Your task to perform on an android device: all mails in gmail Image 0: 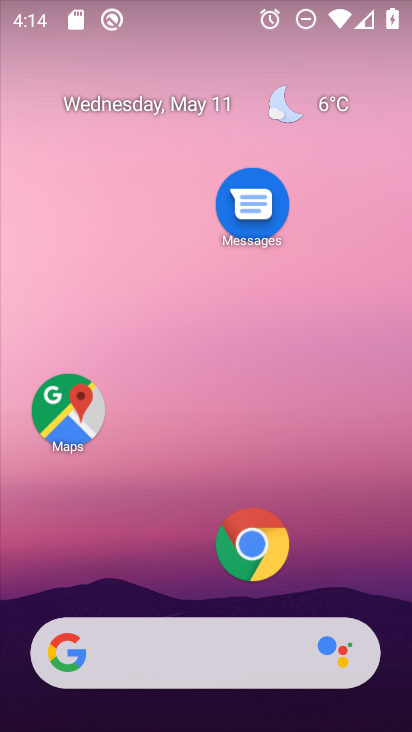
Step 0: drag from (177, 389) to (231, 32)
Your task to perform on an android device: all mails in gmail Image 1: 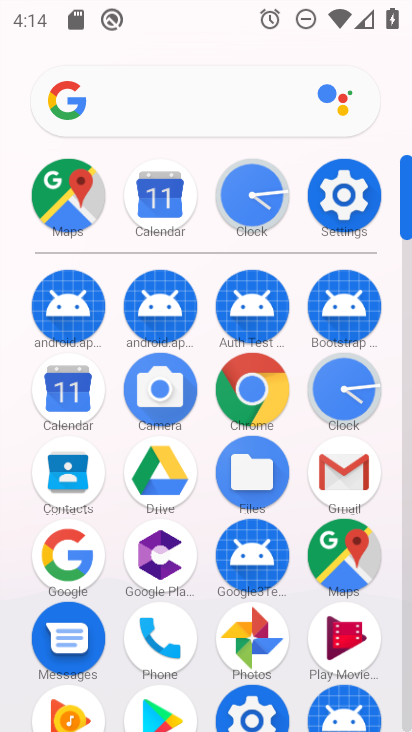
Step 1: click (342, 469)
Your task to perform on an android device: all mails in gmail Image 2: 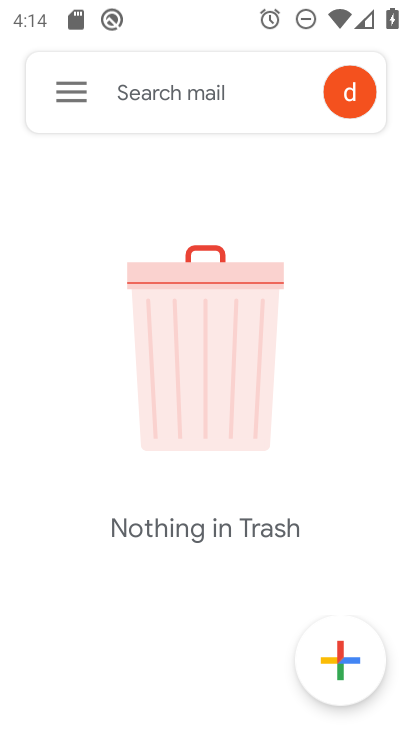
Step 2: click (76, 96)
Your task to perform on an android device: all mails in gmail Image 3: 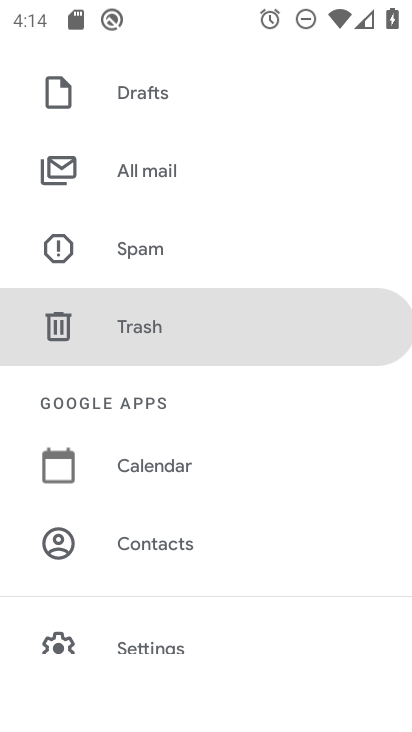
Step 3: click (156, 178)
Your task to perform on an android device: all mails in gmail Image 4: 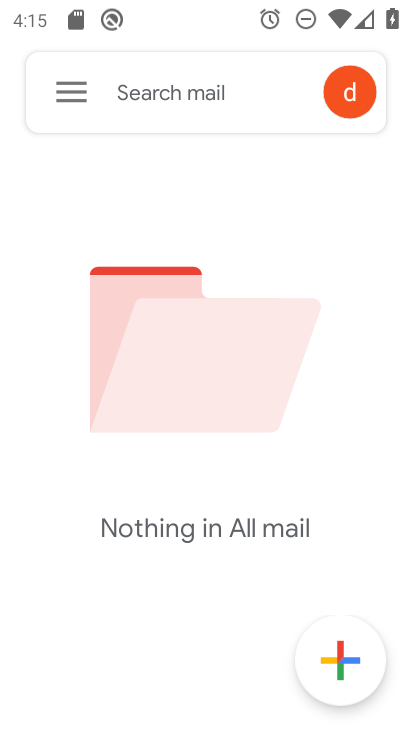
Step 4: task complete